Your task to perform on an android device: Turn off the flashlight Image 0: 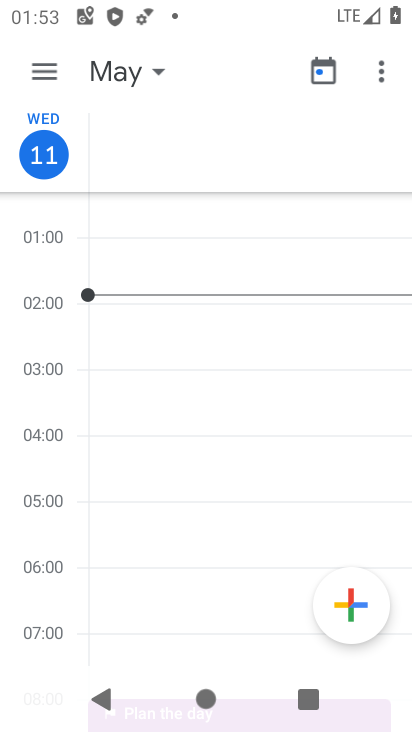
Step 0: click (68, 380)
Your task to perform on an android device: Turn off the flashlight Image 1: 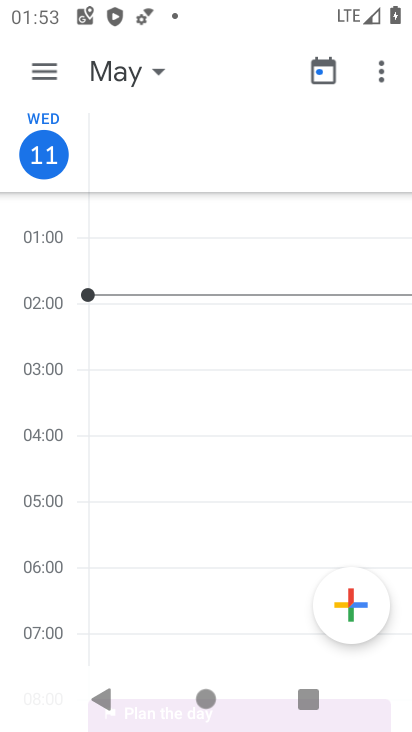
Step 1: press home button
Your task to perform on an android device: Turn off the flashlight Image 2: 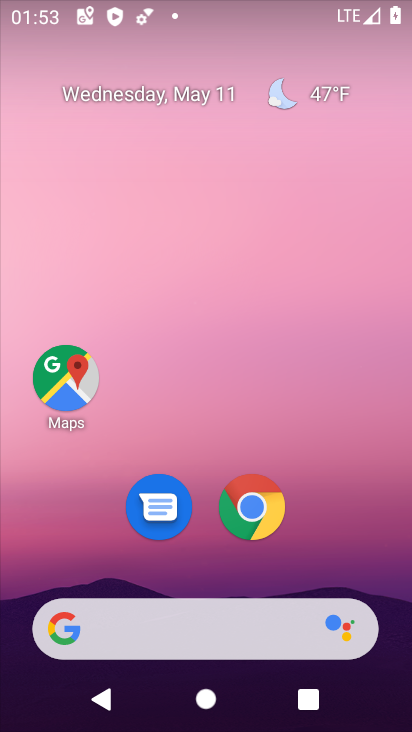
Step 2: drag from (301, 567) to (172, 128)
Your task to perform on an android device: Turn off the flashlight Image 3: 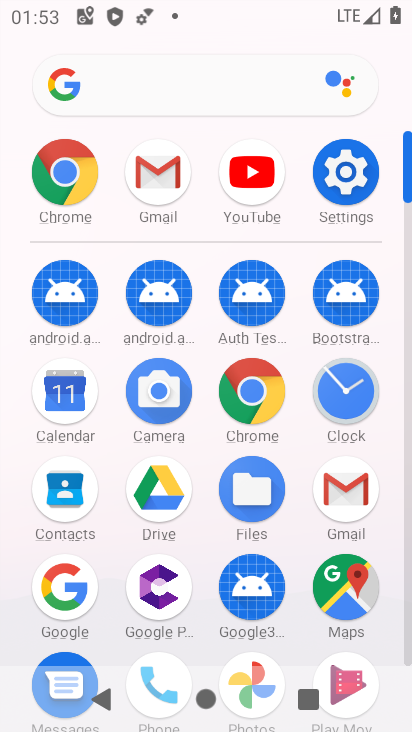
Step 3: click (344, 168)
Your task to perform on an android device: Turn off the flashlight Image 4: 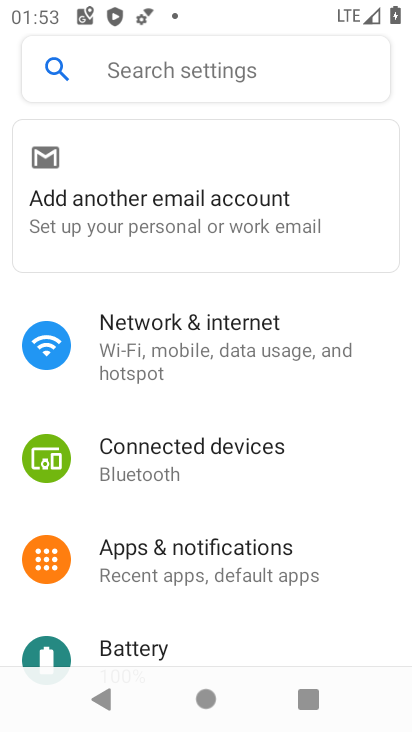
Step 4: drag from (244, 501) to (162, 265)
Your task to perform on an android device: Turn off the flashlight Image 5: 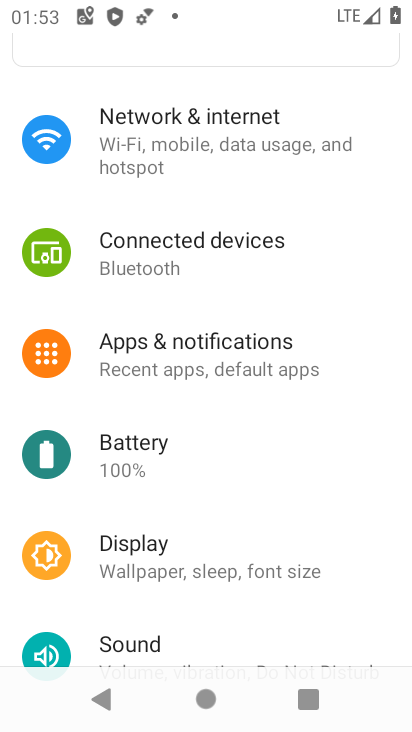
Step 5: click (189, 362)
Your task to perform on an android device: Turn off the flashlight Image 6: 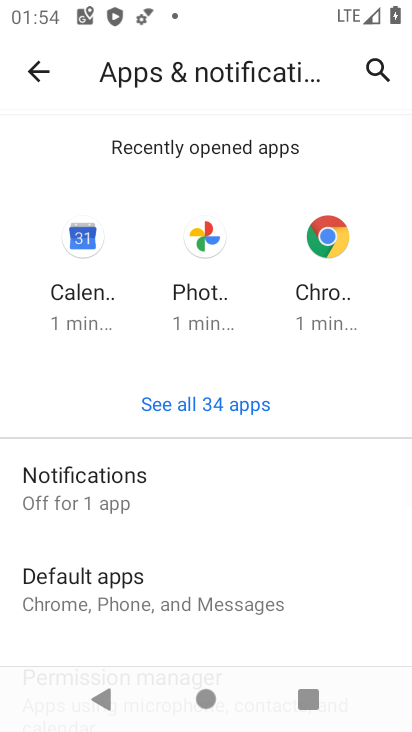
Step 6: drag from (274, 539) to (224, 178)
Your task to perform on an android device: Turn off the flashlight Image 7: 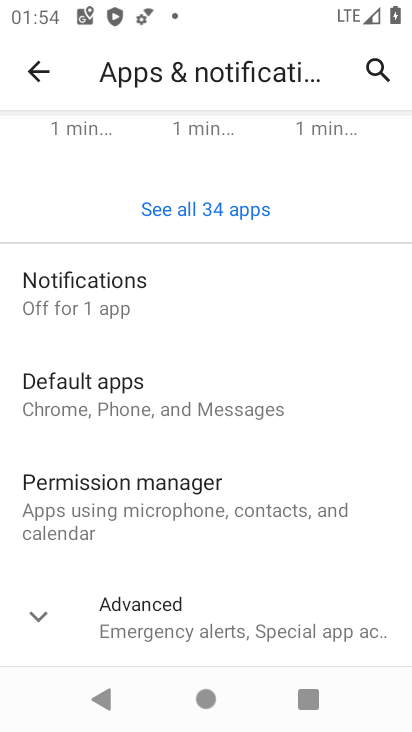
Step 7: drag from (202, 516) to (96, 173)
Your task to perform on an android device: Turn off the flashlight Image 8: 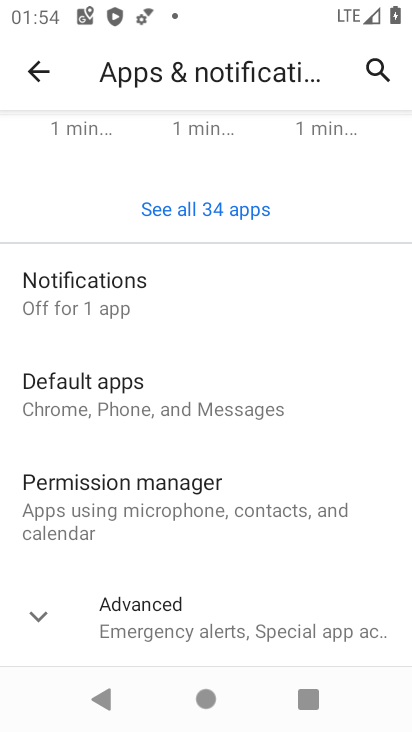
Step 8: click (80, 275)
Your task to perform on an android device: Turn off the flashlight Image 9: 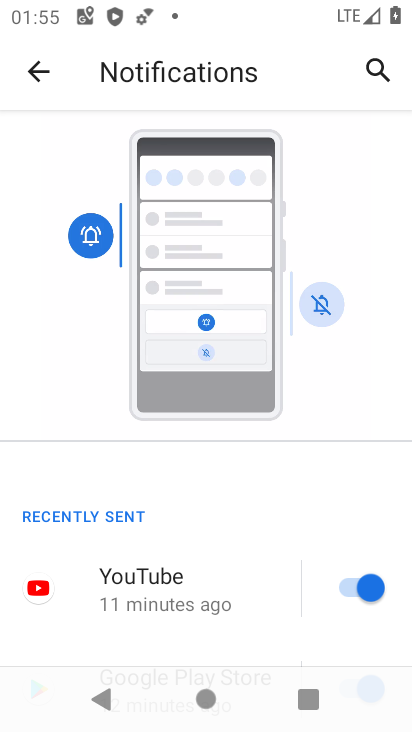
Step 9: task complete